Your task to perform on an android device: Search for seafood restaurants on Google Maps Image 0: 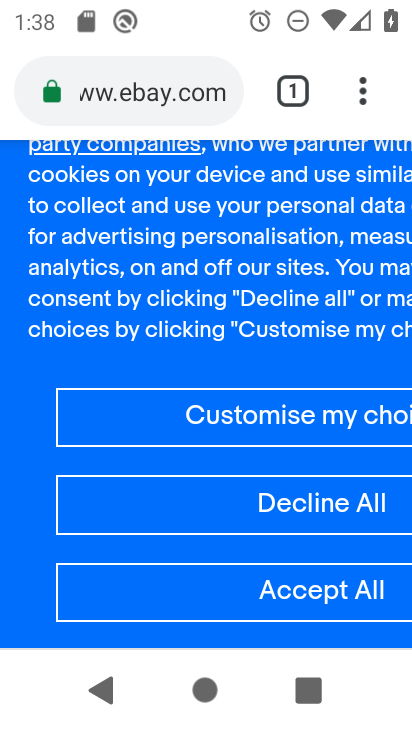
Step 0: press home button
Your task to perform on an android device: Search for seafood restaurants on Google Maps Image 1: 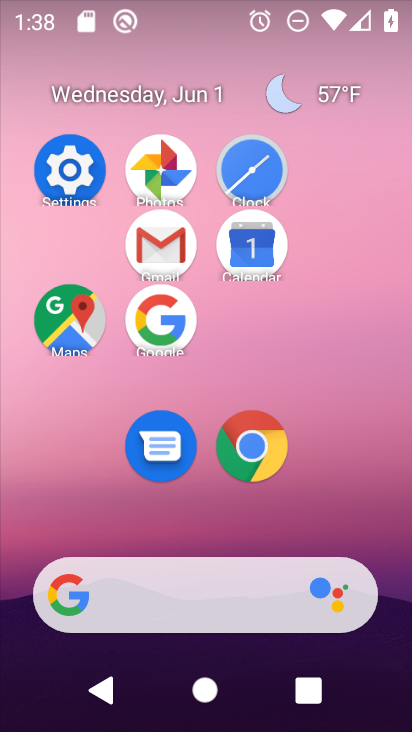
Step 1: click (77, 321)
Your task to perform on an android device: Search for seafood restaurants on Google Maps Image 2: 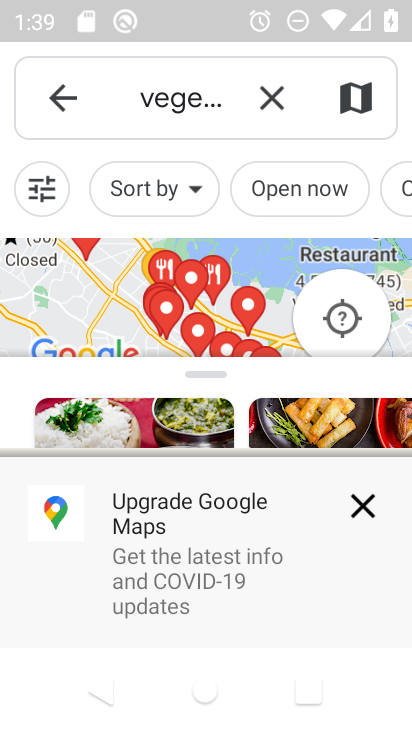
Step 2: click (279, 95)
Your task to perform on an android device: Search for seafood restaurants on Google Maps Image 3: 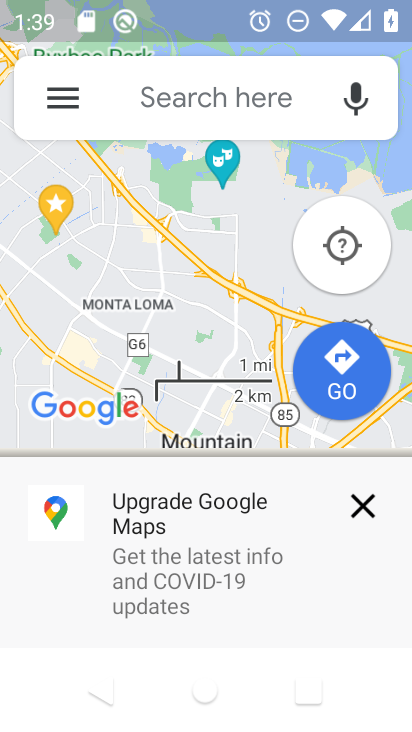
Step 3: click (189, 101)
Your task to perform on an android device: Search for seafood restaurants on Google Maps Image 4: 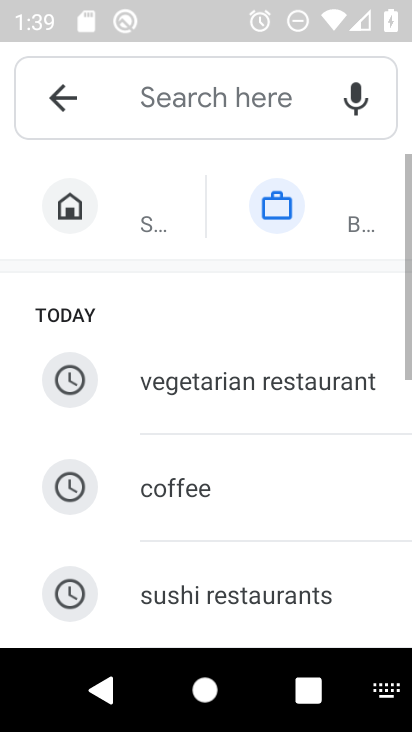
Step 4: drag from (241, 579) to (196, 177)
Your task to perform on an android device: Search for seafood restaurants on Google Maps Image 5: 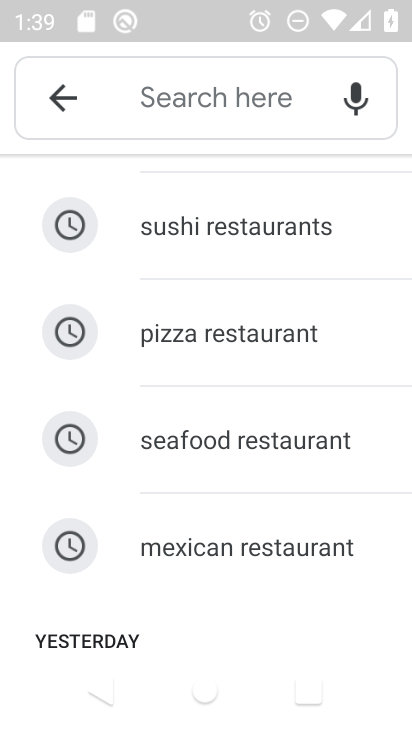
Step 5: click (253, 438)
Your task to perform on an android device: Search for seafood restaurants on Google Maps Image 6: 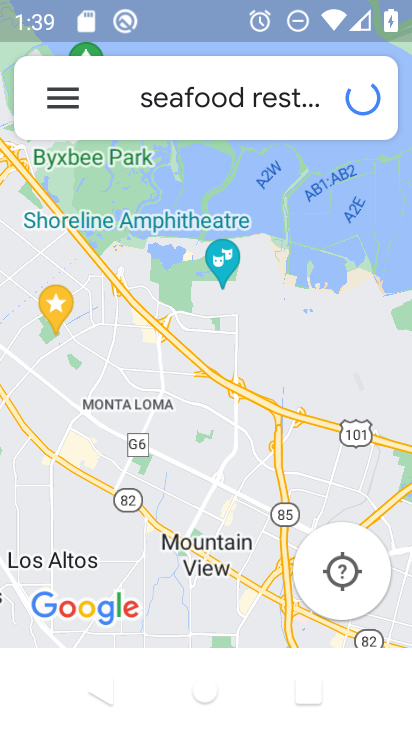
Step 6: task complete